Your task to perform on an android device: What is the news today? Image 0: 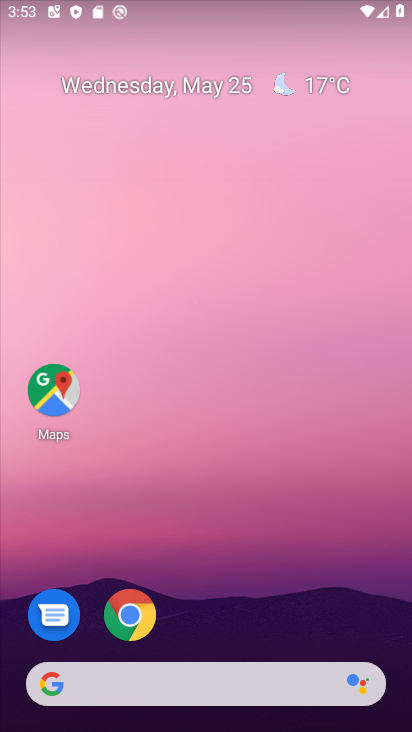
Step 0: drag from (9, 294) to (392, 330)
Your task to perform on an android device: What is the news today? Image 1: 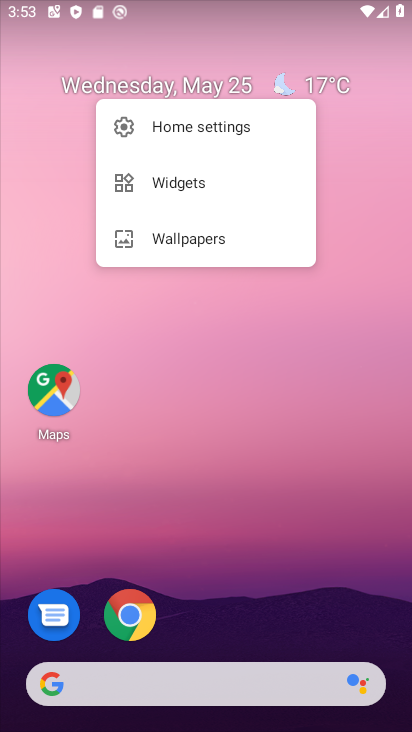
Step 1: click (409, 330)
Your task to perform on an android device: What is the news today? Image 2: 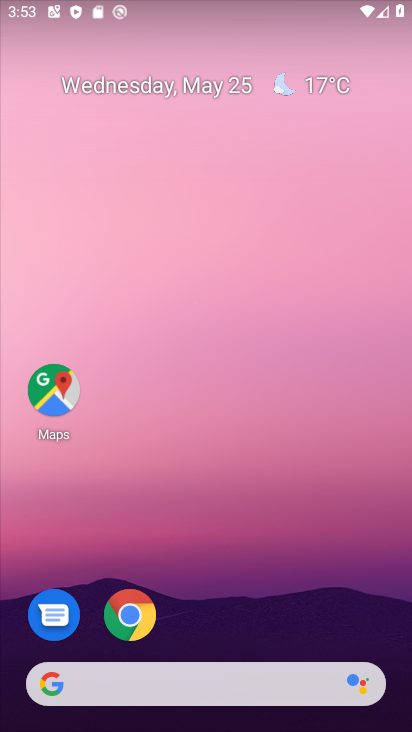
Step 2: task complete